Your task to perform on an android device: Open internet settings Image 0: 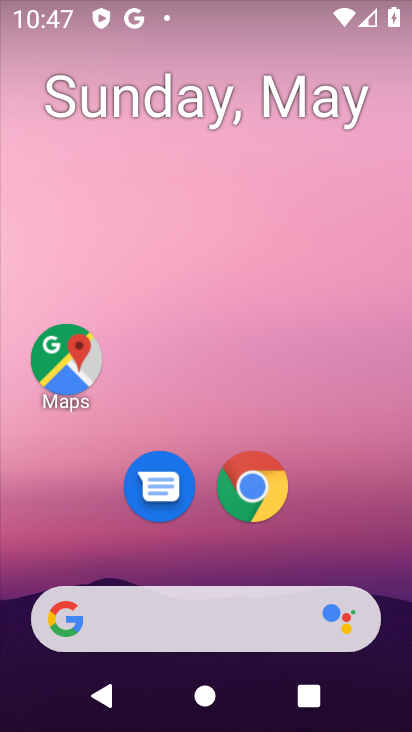
Step 0: drag from (291, 545) to (288, 179)
Your task to perform on an android device: Open internet settings Image 1: 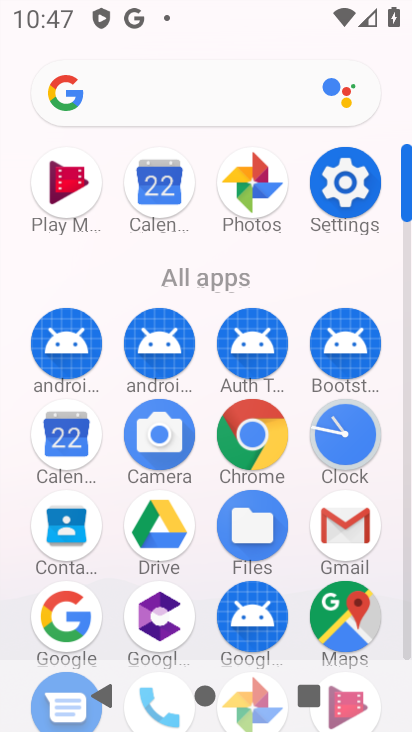
Step 1: click (351, 187)
Your task to perform on an android device: Open internet settings Image 2: 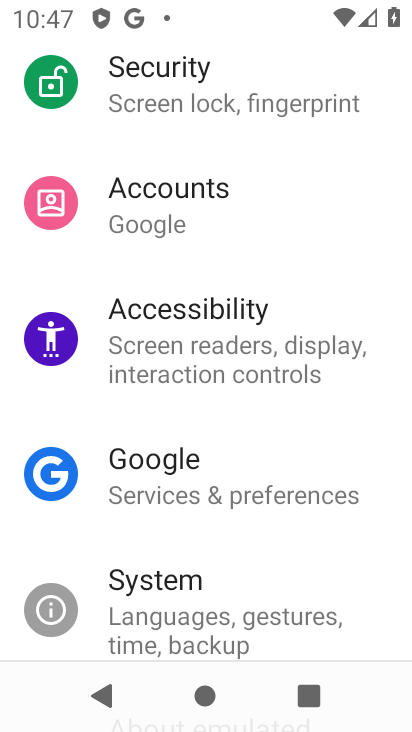
Step 2: drag from (282, 161) to (273, 533)
Your task to perform on an android device: Open internet settings Image 3: 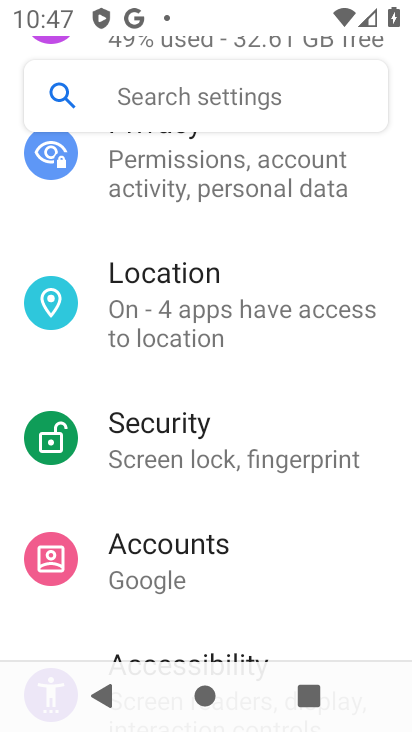
Step 3: drag from (255, 267) to (237, 569)
Your task to perform on an android device: Open internet settings Image 4: 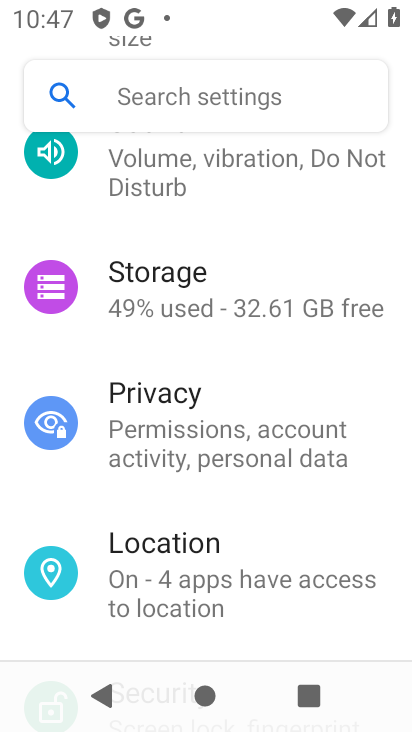
Step 4: drag from (201, 211) to (185, 520)
Your task to perform on an android device: Open internet settings Image 5: 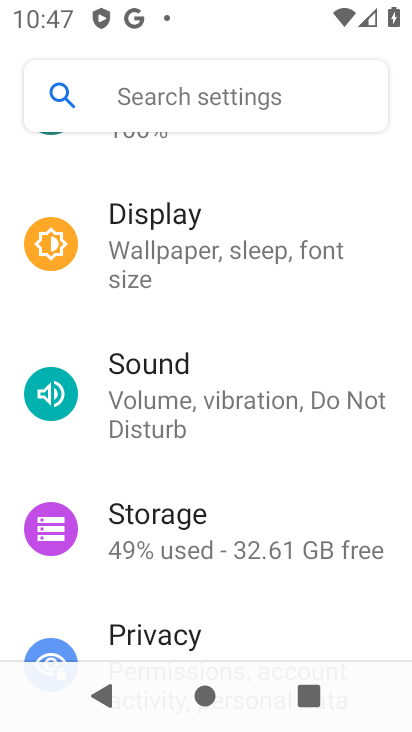
Step 5: drag from (235, 286) to (222, 569)
Your task to perform on an android device: Open internet settings Image 6: 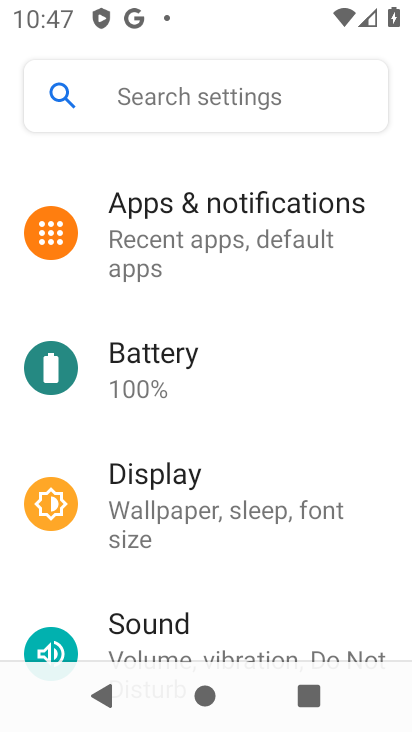
Step 6: drag from (229, 241) to (223, 560)
Your task to perform on an android device: Open internet settings Image 7: 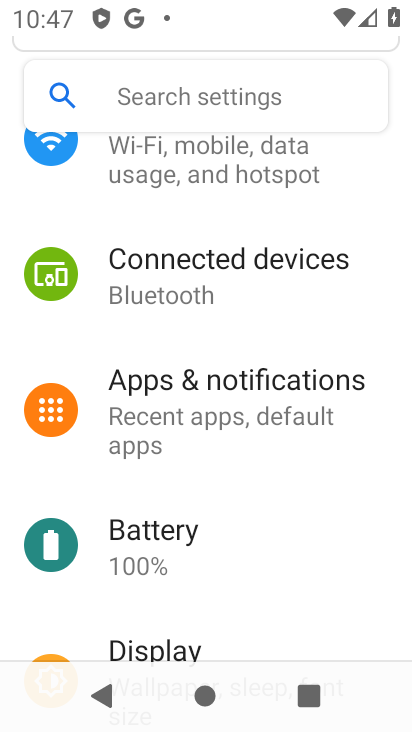
Step 7: click (148, 182)
Your task to perform on an android device: Open internet settings Image 8: 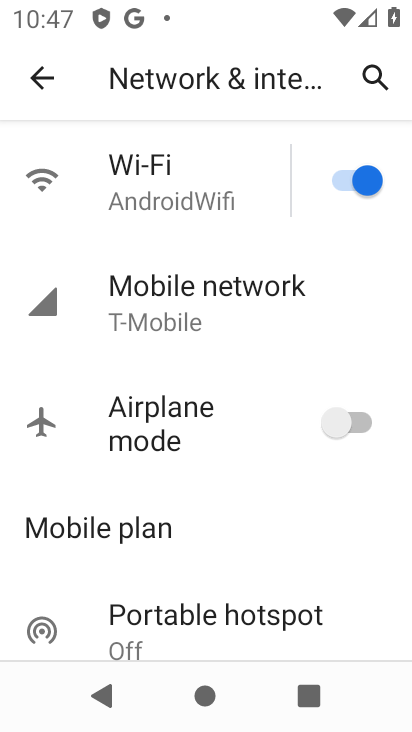
Step 8: click (202, 305)
Your task to perform on an android device: Open internet settings Image 9: 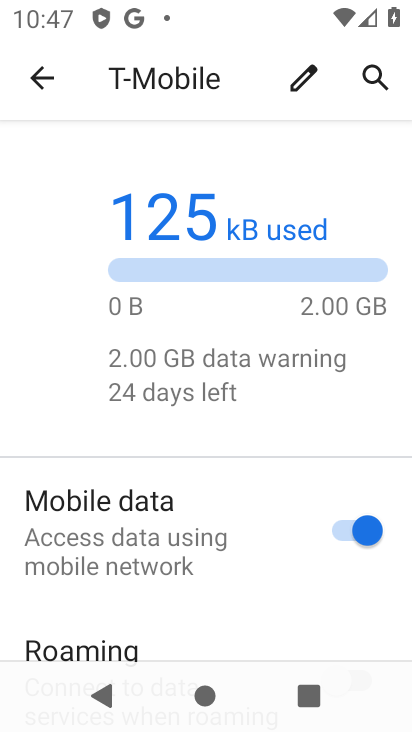
Step 9: task complete